Your task to perform on an android device: turn on showing notifications on the lock screen Image 0: 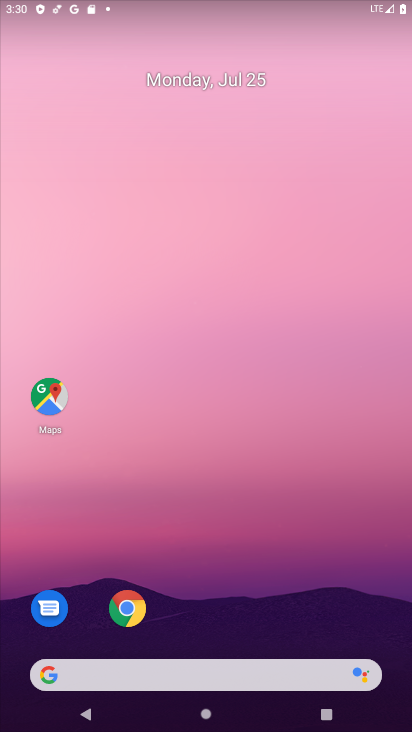
Step 0: drag from (70, 730) to (150, 182)
Your task to perform on an android device: turn on showing notifications on the lock screen Image 1: 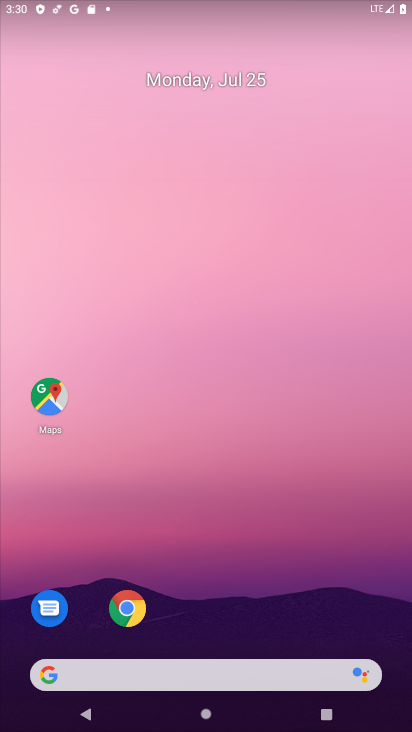
Step 1: task complete